Your task to perform on an android device: Go to Google maps Image 0: 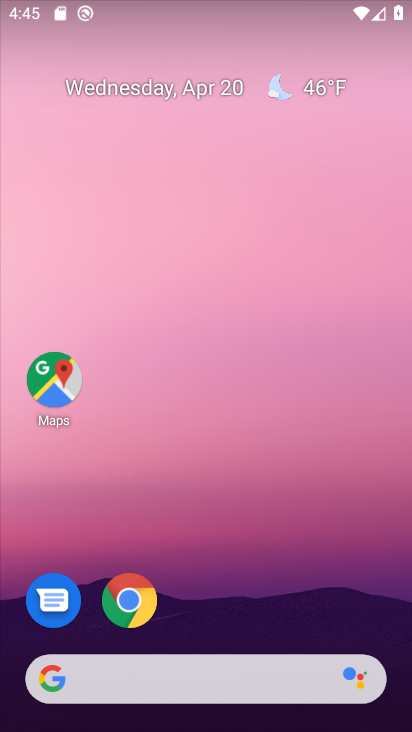
Step 0: click (48, 374)
Your task to perform on an android device: Go to Google maps Image 1: 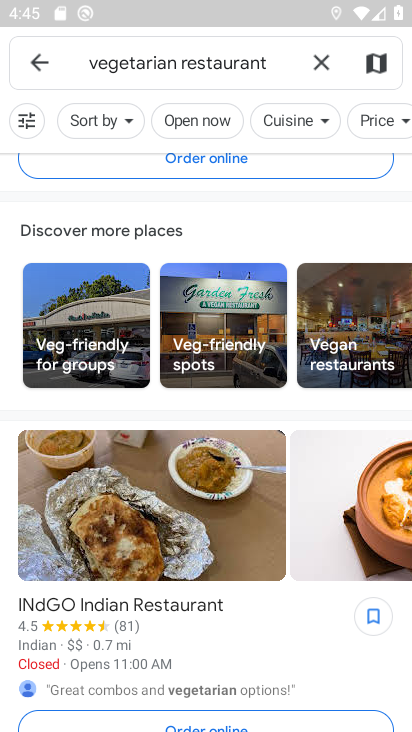
Step 1: click (319, 58)
Your task to perform on an android device: Go to Google maps Image 2: 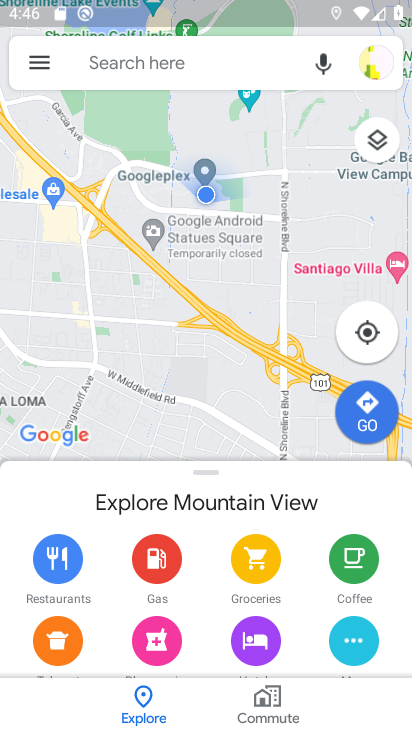
Step 2: task complete